Your task to perform on an android device: Open the calendar app, open the side menu, and click the "Day" option Image 0: 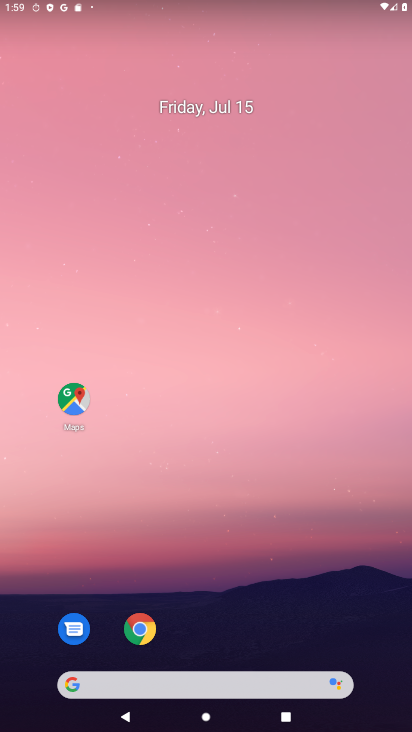
Step 0: drag from (161, 628) to (230, 7)
Your task to perform on an android device: Open the calendar app, open the side menu, and click the "Day" option Image 1: 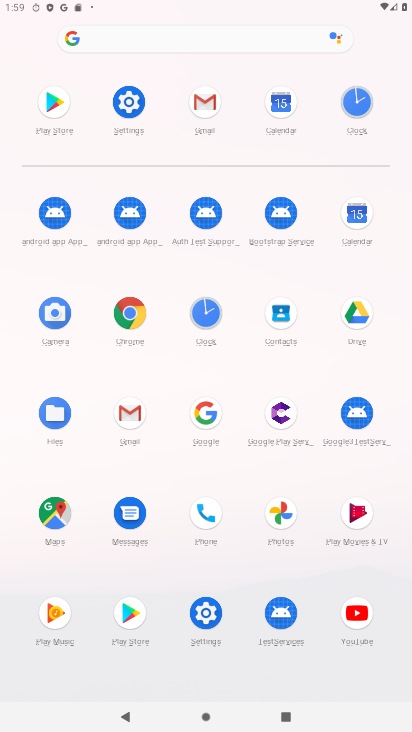
Step 1: click (353, 224)
Your task to perform on an android device: Open the calendar app, open the side menu, and click the "Day" option Image 2: 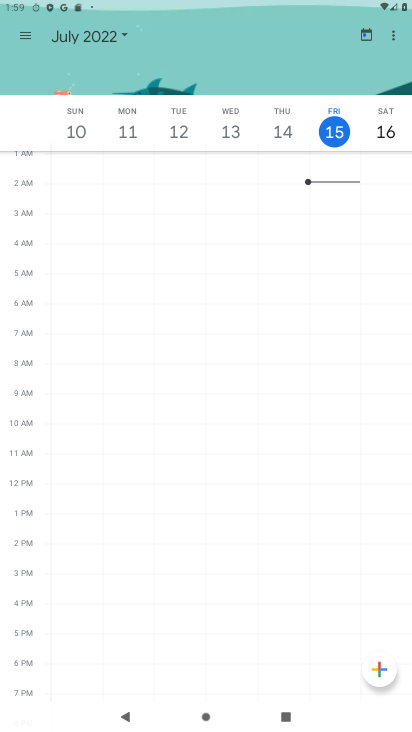
Step 2: click (21, 35)
Your task to perform on an android device: Open the calendar app, open the side menu, and click the "Day" option Image 3: 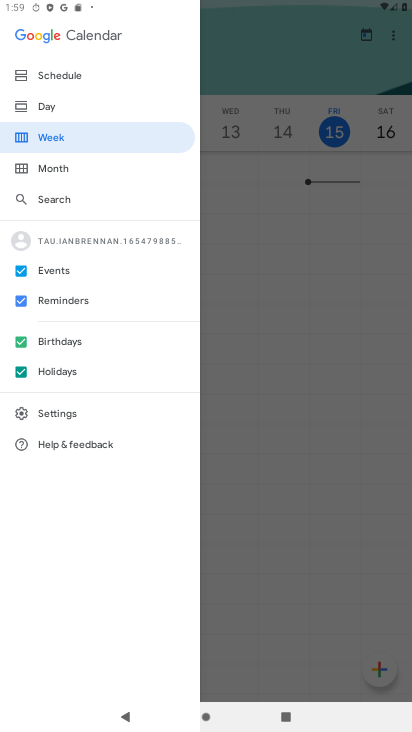
Step 3: click (57, 110)
Your task to perform on an android device: Open the calendar app, open the side menu, and click the "Day" option Image 4: 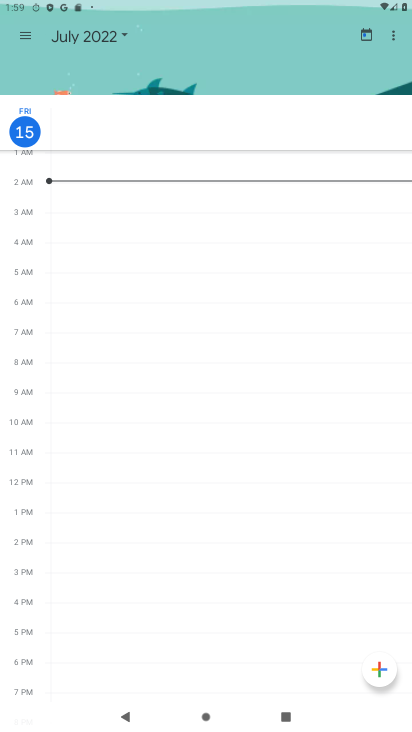
Step 4: task complete